Your task to perform on an android device: see tabs open on other devices in the chrome app Image 0: 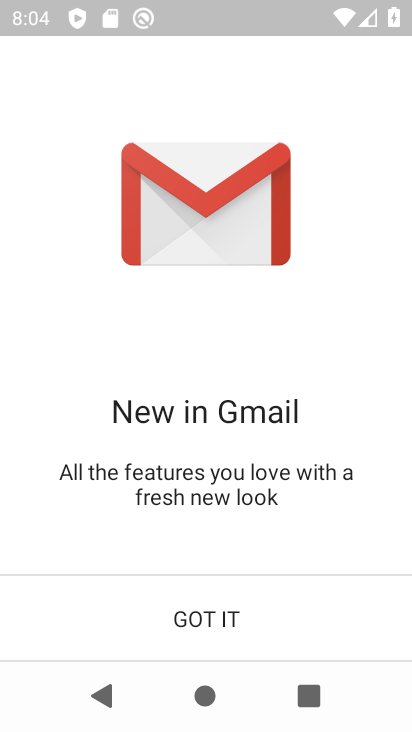
Step 0: press home button
Your task to perform on an android device: see tabs open on other devices in the chrome app Image 1: 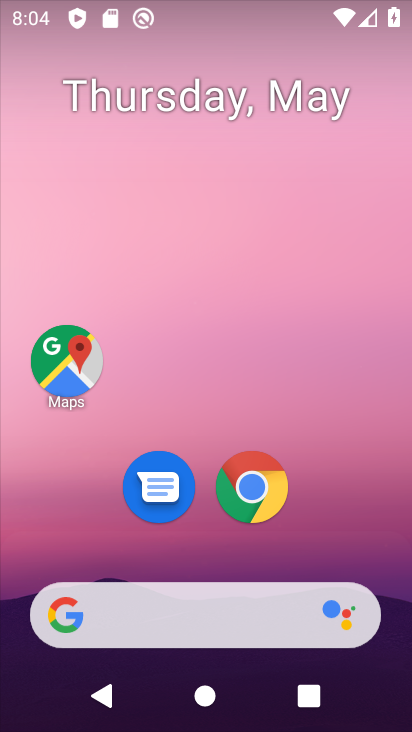
Step 1: click (248, 487)
Your task to perform on an android device: see tabs open on other devices in the chrome app Image 2: 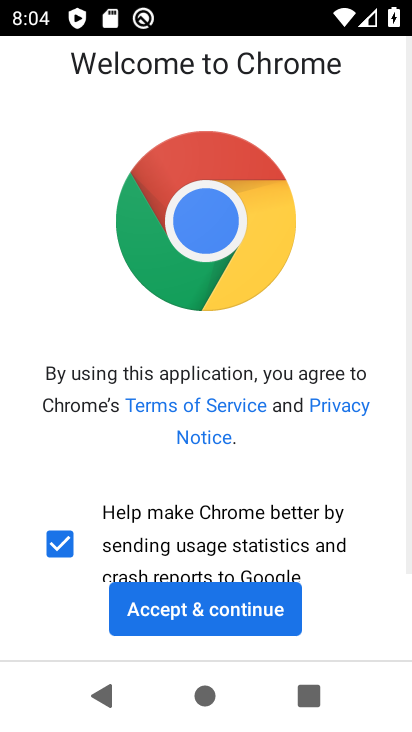
Step 2: click (252, 601)
Your task to perform on an android device: see tabs open on other devices in the chrome app Image 3: 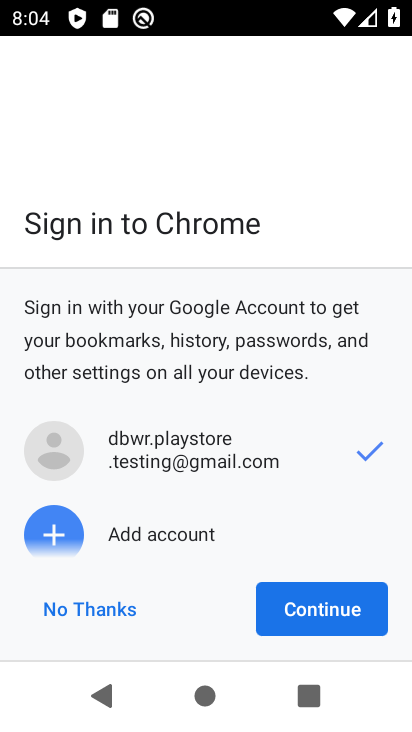
Step 3: click (300, 595)
Your task to perform on an android device: see tabs open on other devices in the chrome app Image 4: 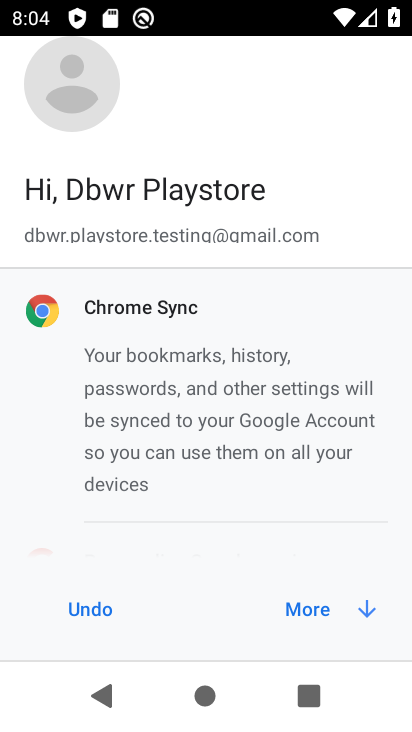
Step 4: click (308, 601)
Your task to perform on an android device: see tabs open on other devices in the chrome app Image 5: 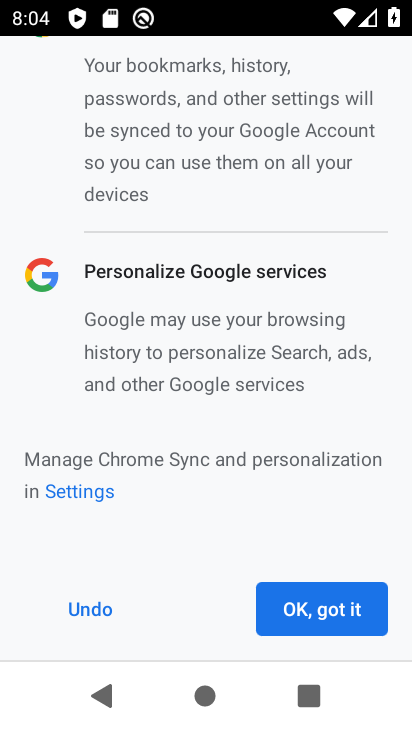
Step 5: click (315, 595)
Your task to perform on an android device: see tabs open on other devices in the chrome app Image 6: 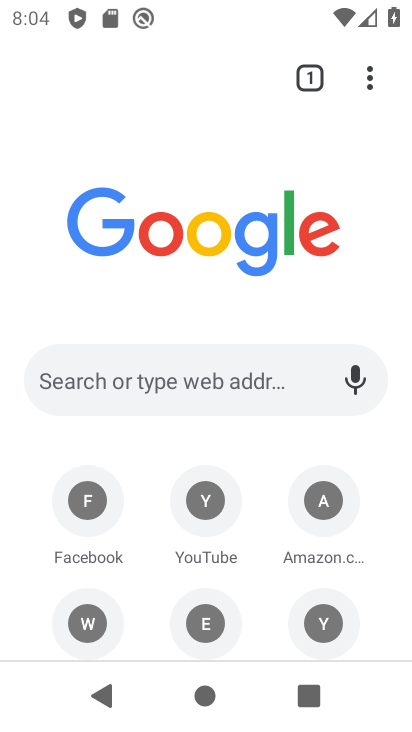
Step 6: click (366, 94)
Your task to perform on an android device: see tabs open on other devices in the chrome app Image 7: 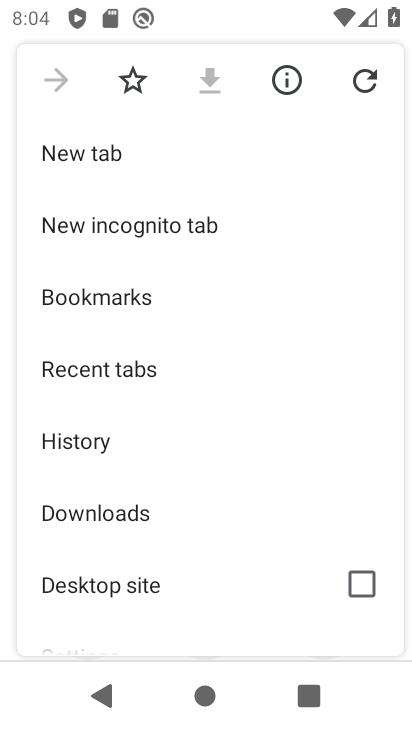
Step 7: click (114, 429)
Your task to perform on an android device: see tabs open on other devices in the chrome app Image 8: 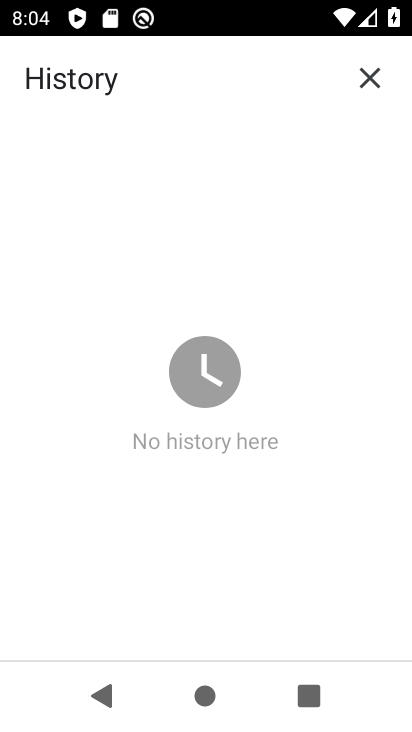
Step 8: task complete